Your task to perform on an android device: Open CNN.com Image 0: 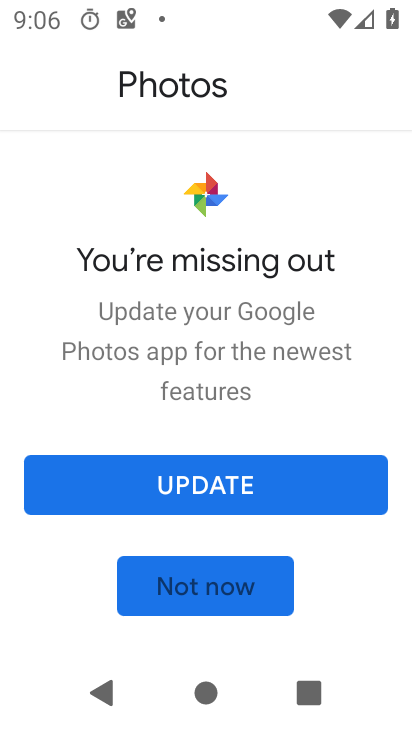
Step 0: press home button
Your task to perform on an android device: Open CNN.com Image 1: 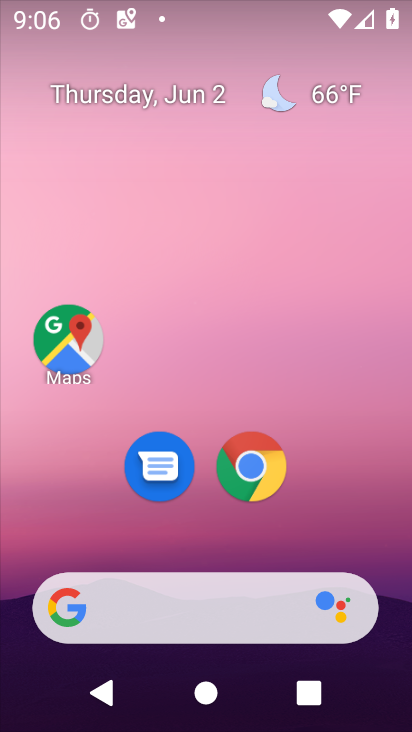
Step 1: click (246, 471)
Your task to perform on an android device: Open CNN.com Image 2: 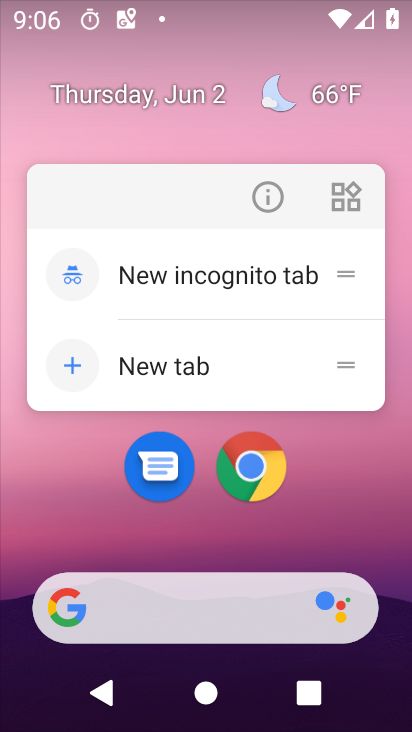
Step 2: click (247, 458)
Your task to perform on an android device: Open CNN.com Image 3: 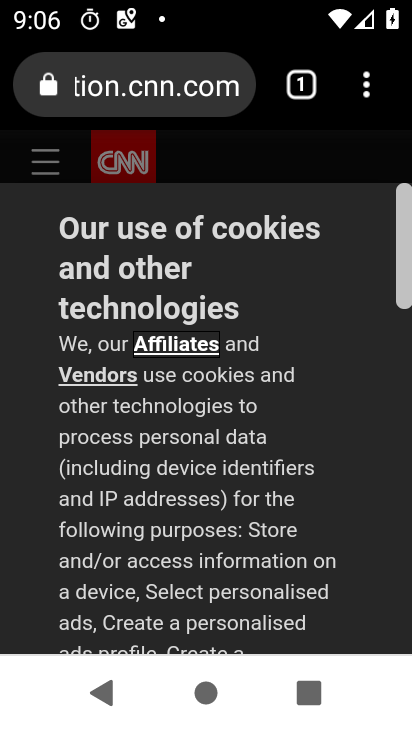
Step 3: task complete